Your task to perform on an android device: toggle notification dots Image 0: 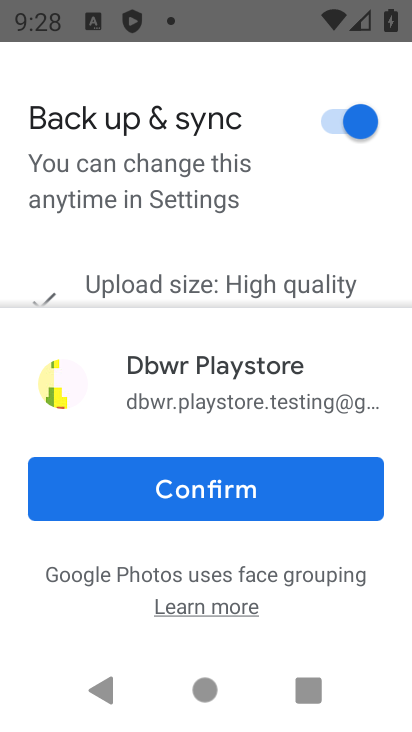
Step 0: click (245, 486)
Your task to perform on an android device: toggle notification dots Image 1: 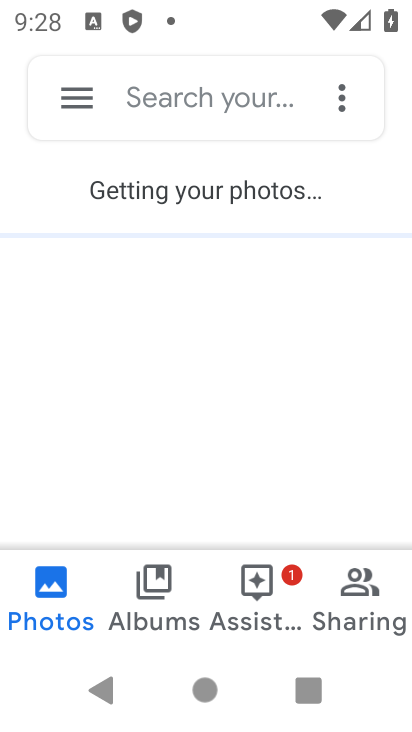
Step 1: click (73, 118)
Your task to perform on an android device: toggle notification dots Image 2: 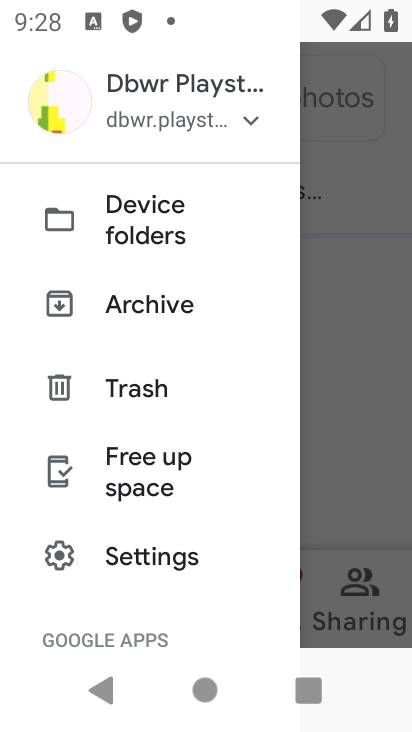
Step 2: click (188, 569)
Your task to perform on an android device: toggle notification dots Image 3: 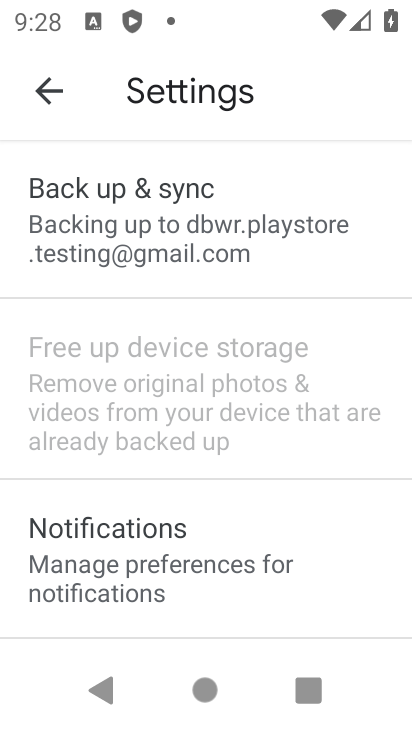
Step 3: drag from (180, 538) to (207, 210)
Your task to perform on an android device: toggle notification dots Image 4: 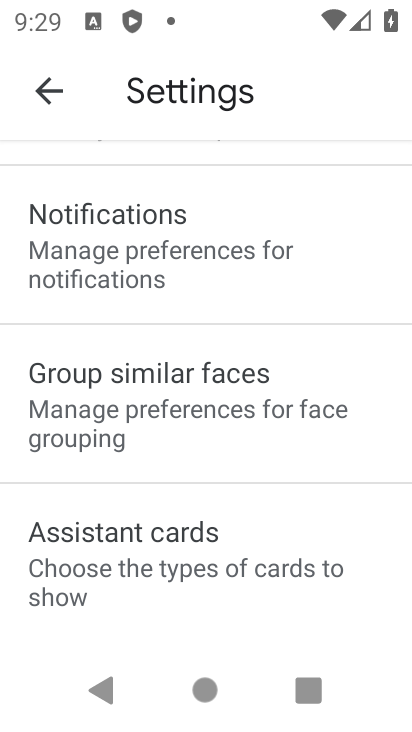
Step 4: click (185, 238)
Your task to perform on an android device: toggle notification dots Image 5: 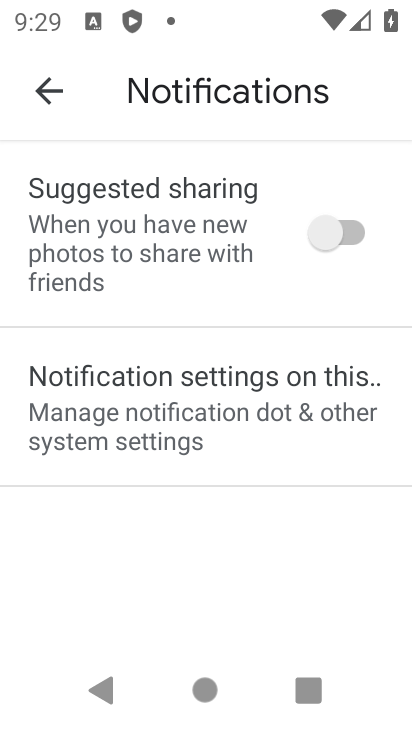
Step 5: click (263, 432)
Your task to perform on an android device: toggle notification dots Image 6: 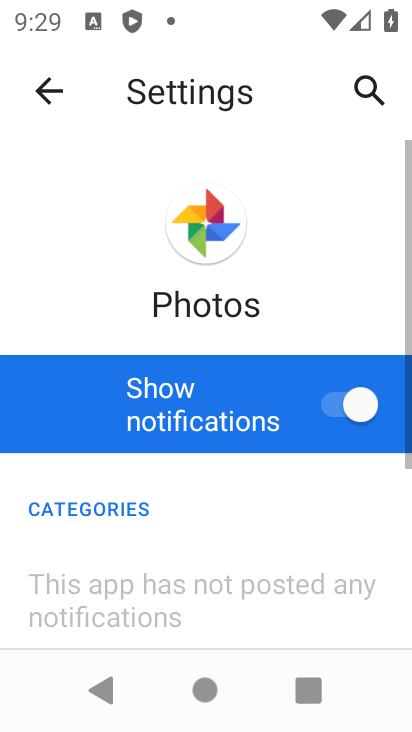
Step 6: drag from (251, 573) to (255, 211)
Your task to perform on an android device: toggle notification dots Image 7: 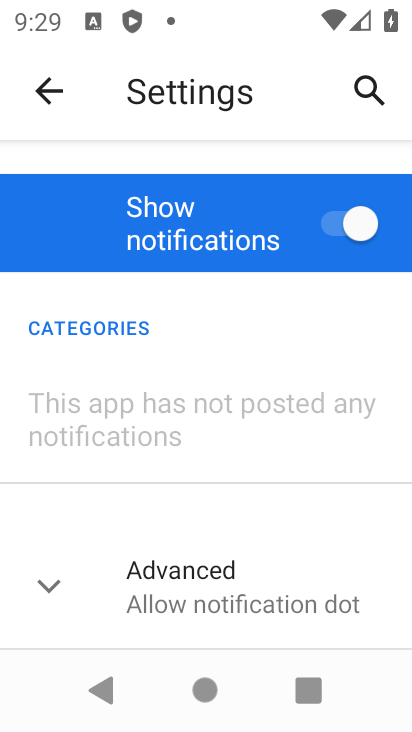
Step 7: drag from (235, 545) to (278, 267)
Your task to perform on an android device: toggle notification dots Image 8: 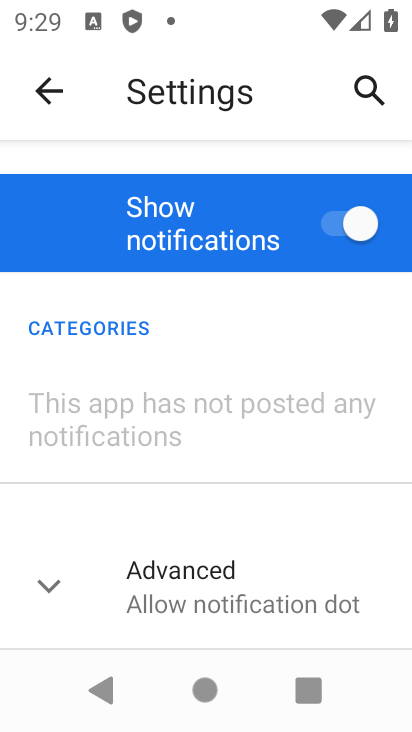
Step 8: click (252, 609)
Your task to perform on an android device: toggle notification dots Image 9: 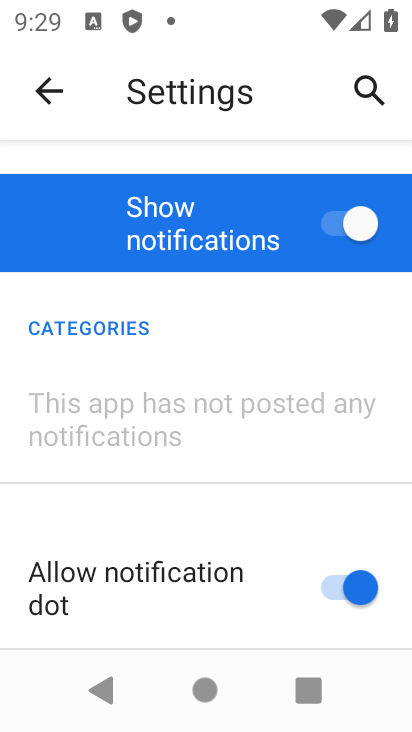
Step 9: drag from (255, 603) to (311, 317)
Your task to perform on an android device: toggle notification dots Image 10: 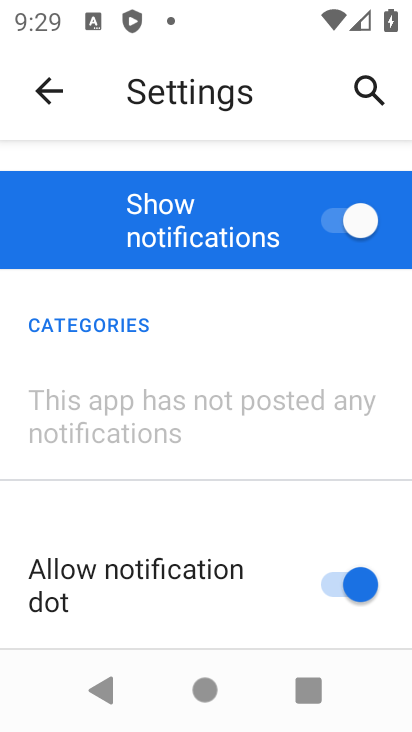
Step 10: drag from (220, 594) to (266, 183)
Your task to perform on an android device: toggle notification dots Image 11: 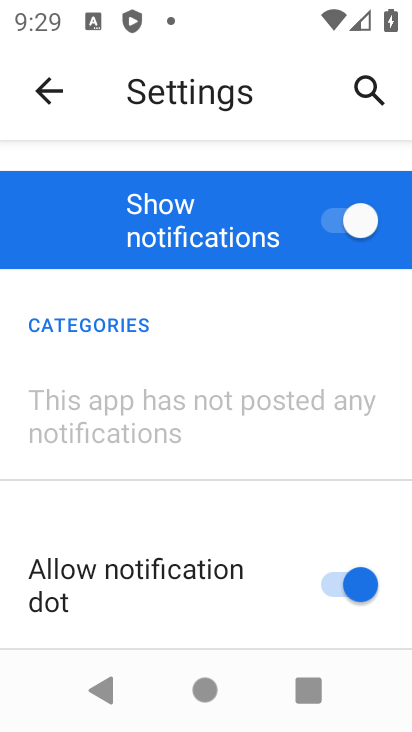
Step 11: click (339, 599)
Your task to perform on an android device: toggle notification dots Image 12: 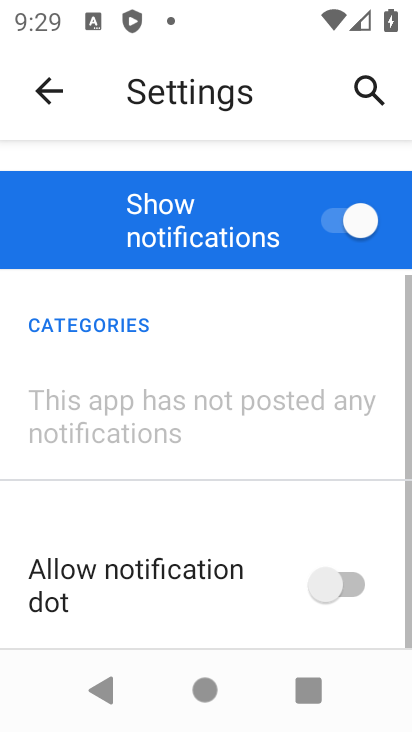
Step 12: task complete